Your task to perform on an android device: turn on data saver in the chrome app Image 0: 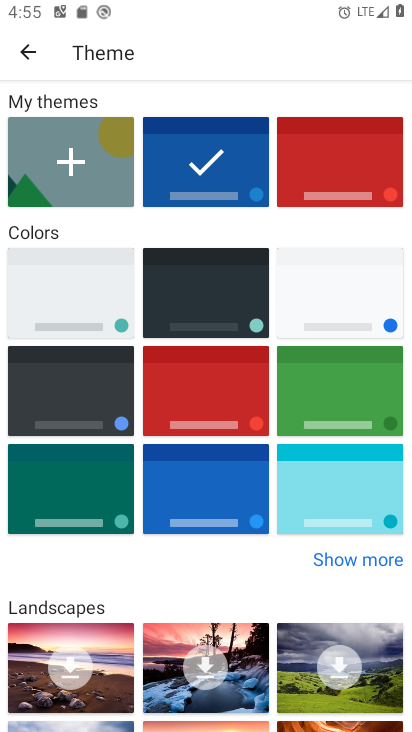
Step 0: press home button
Your task to perform on an android device: turn on data saver in the chrome app Image 1: 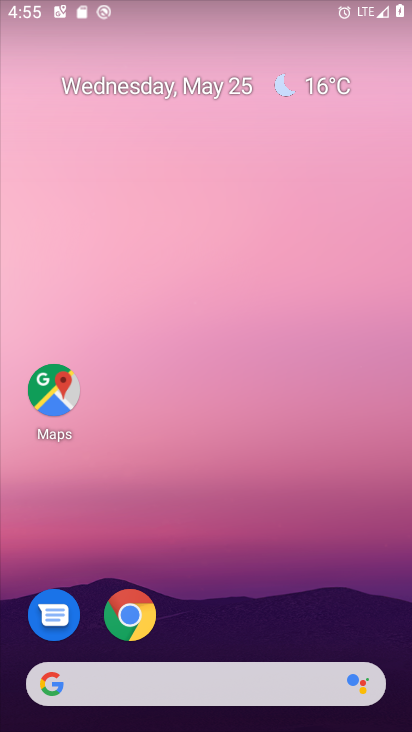
Step 1: click (135, 632)
Your task to perform on an android device: turn on data saver in the chrome app Image 2: 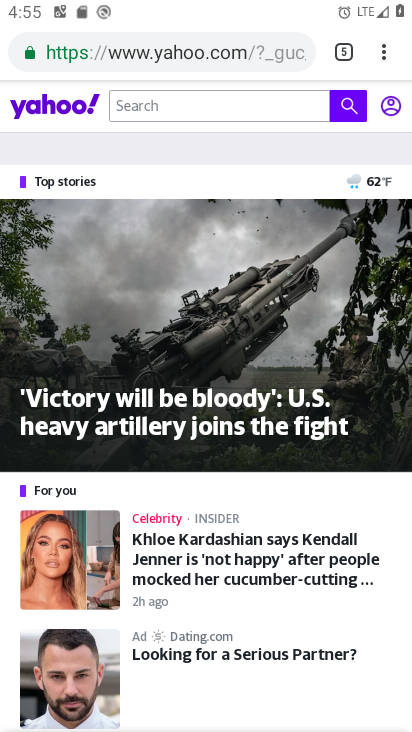
Step 2: click (378, 58)
Your task to perform on an android device: turn on data saver in the chrome app Image 3: 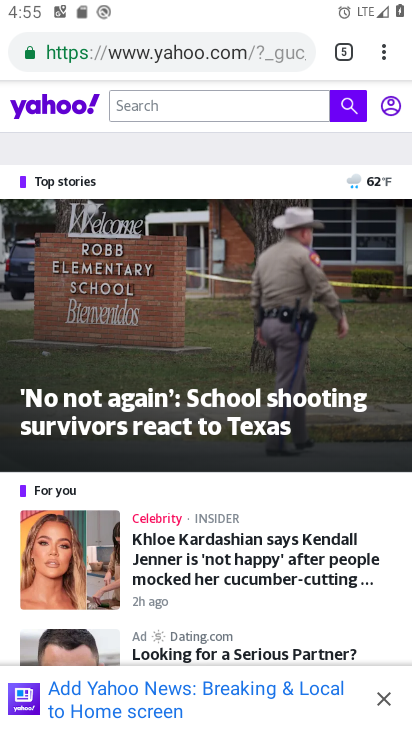
Step 3: click (383, 49)
Your task to perform on an android device: turn on data saver in the chrome app Image 4: 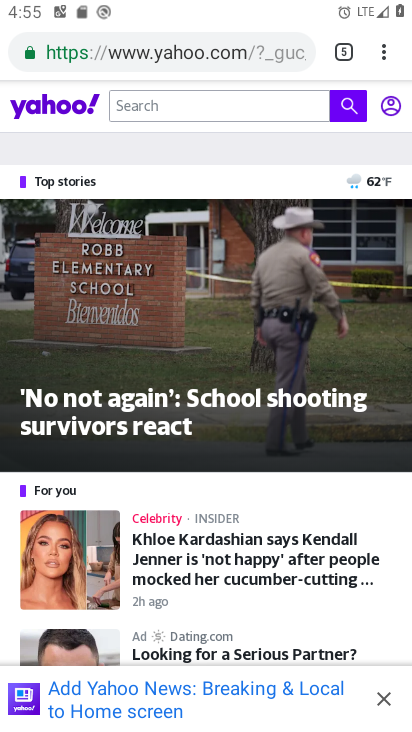
Step 4: click (383, 48)
Your task to perform on an android device: turn on data saver in the chrome app Image 5: 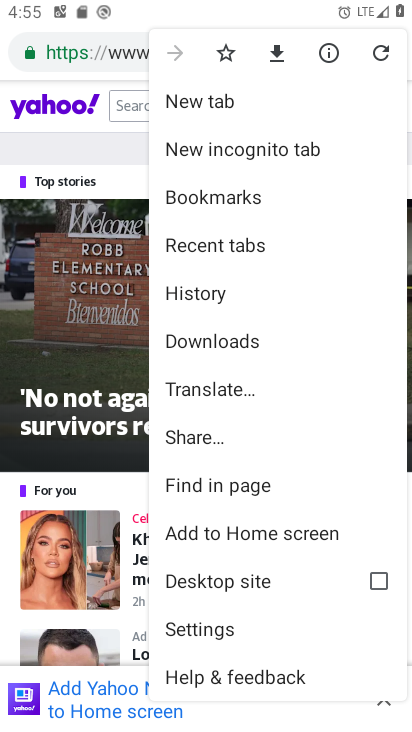
Step 5: click (241, 626)
Your task to perform on an android device: turn on data saver in the chrome app Image 6: 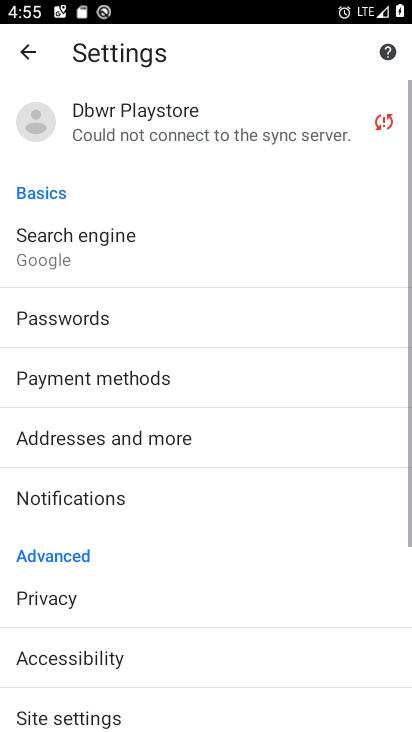
Step 6: drag from (205, 601) to (203, 99)
Your task to perform on an android device: turn on data saver in the chrome app Image 7: 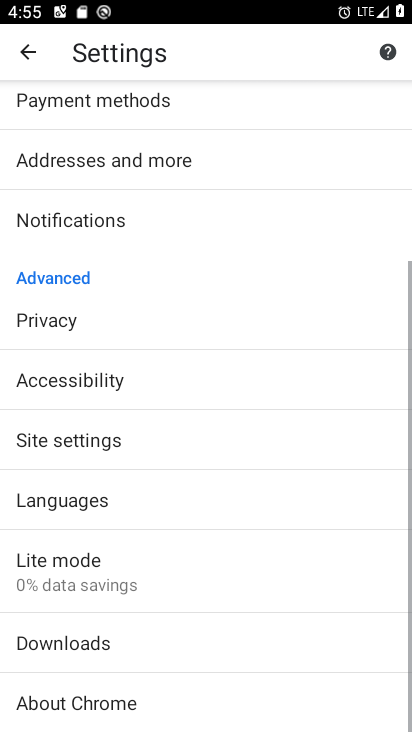
Step 7: click (141, 575)
Your task to perform on an android device: turn on data saver in the chrome app Image 8: 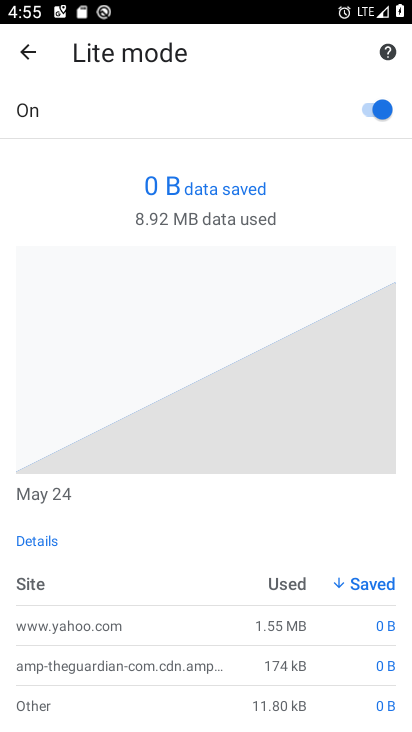
Step 8: task complete